Your task to perform on an android device: check battery use Image 0: 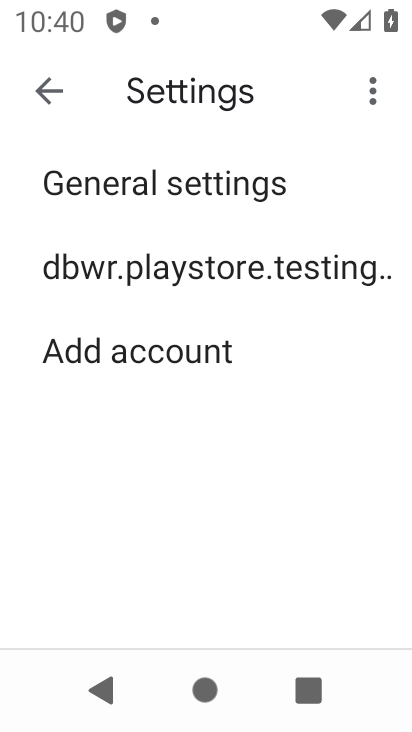
Step 0: press home button
Your task to perform on an android device: check battery use Image 1: 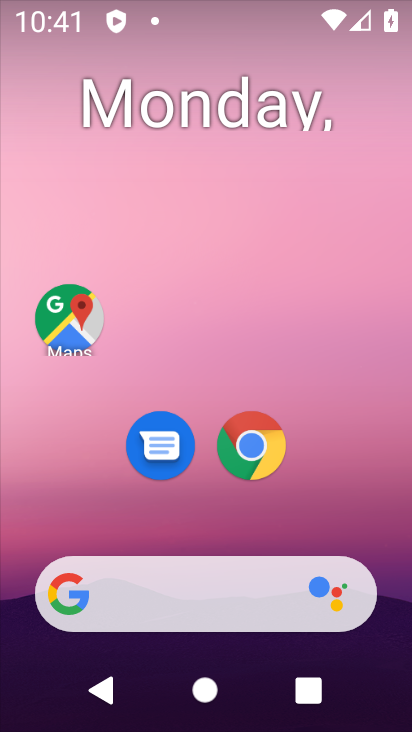
Step 1: drag from (280, 283) to (121, 75)
Your task to perform on an android device: check battery use Image 2: 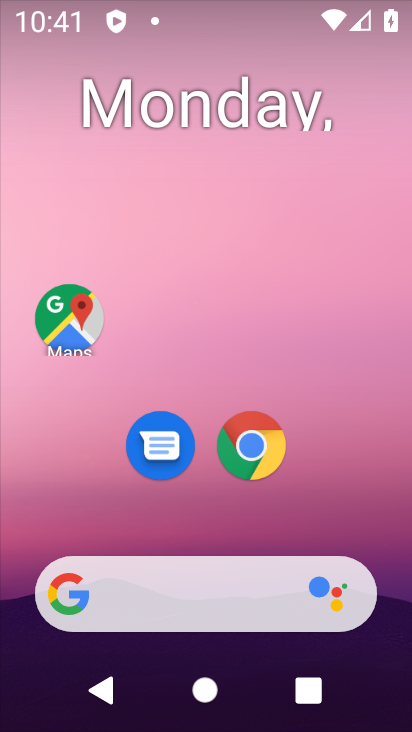
Step 2: drag from (317, 496) to (56, 50)
Your task to perform on an android device: check battery use Image 3: 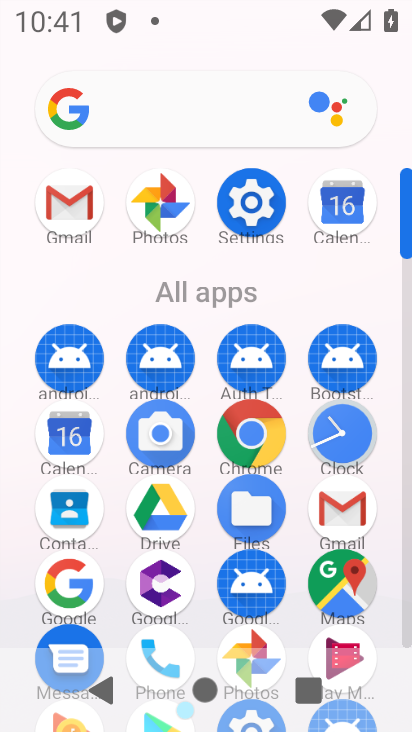
Step 3: click (257, 212)
Your task to perform on an android device: check battery use Image 4: 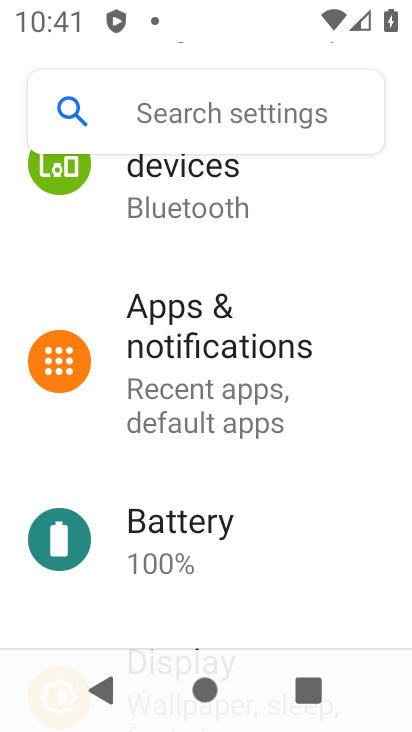
Step 4: click (210, 546)
Your task to perform on an android device: check battery use Image 5: 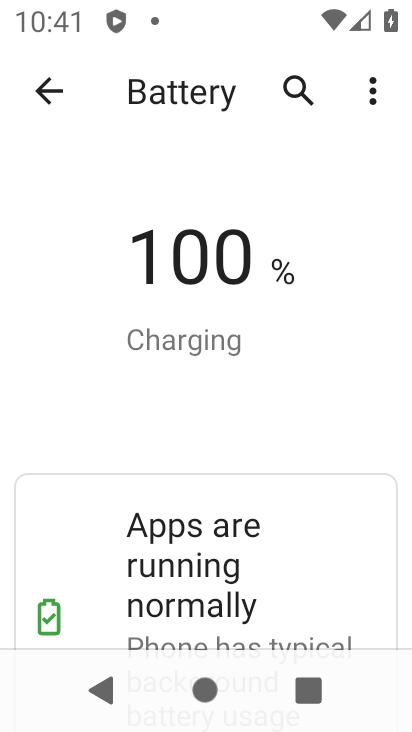
Step 5: task complete